Your task to perform on an android device: Turn on the flashlight Image 0: 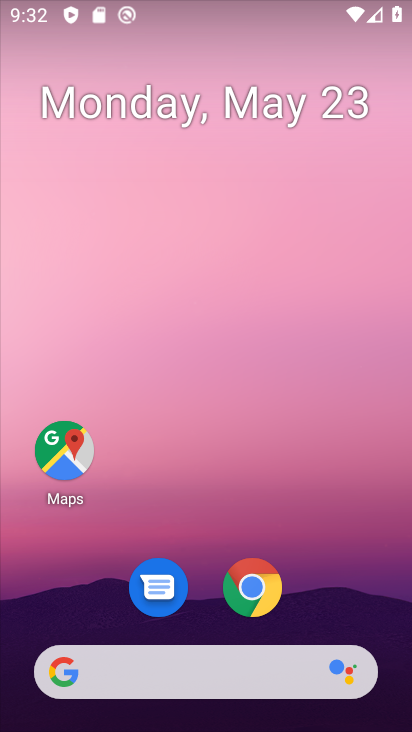
Step 0: drag from (376, 587) to (365, 40)
Your task to perform on an android device: Turn on the flashlight Image 1: 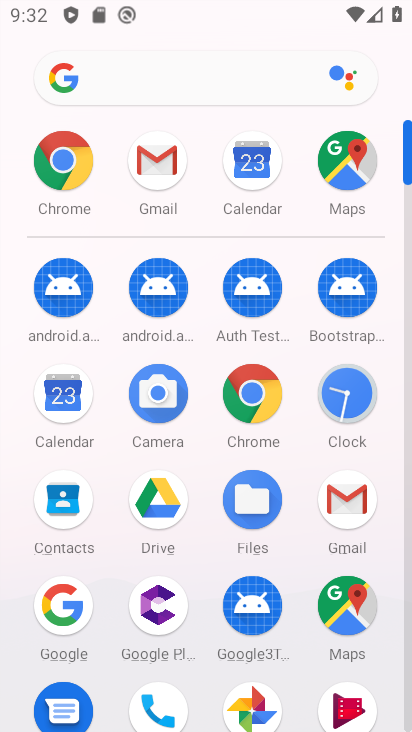
Step 1: drag from (382, 648) to (318, 224)
Your task to perform on an android device: Turn on the flashlight Image 2: 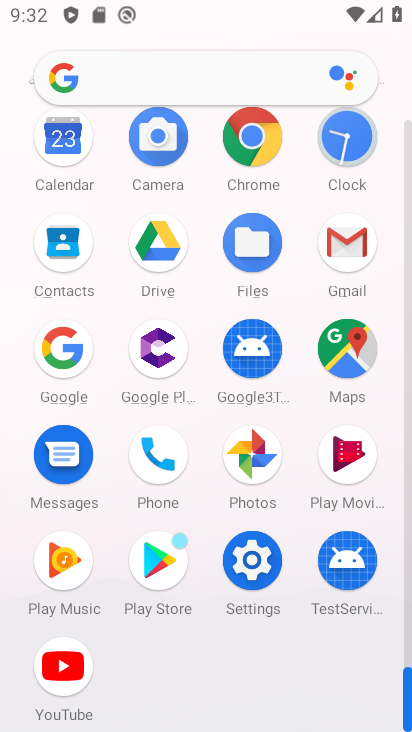
Step 2: click (260, 574)
Your task to perform on an android device: Turn on the flashlight Image 3: 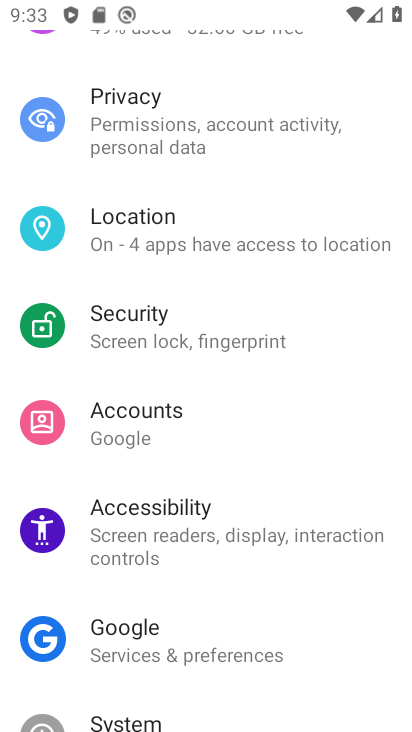
Step 3: task complete